Your task to perform on an android device: turn on notifications settings in the gmail app Image 0: 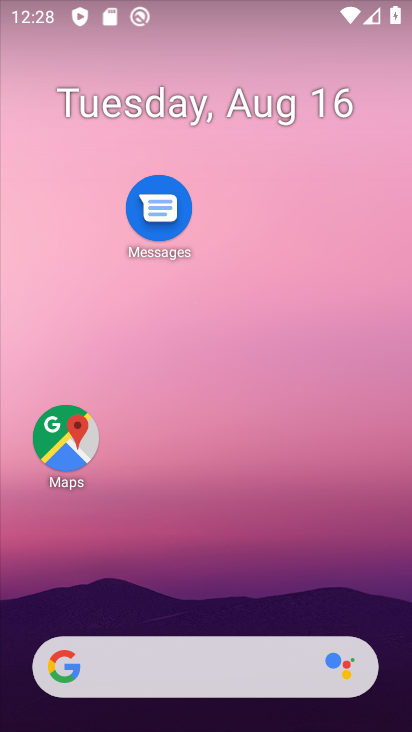
Step 0: drag from (185, 609) to (137, 61)
Your task to perform on an android device: turn on notifications settings in the gmail app Image 1: 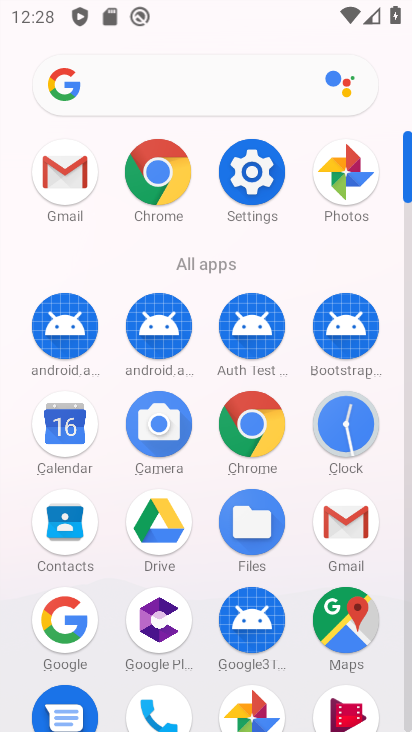
Step 1: click (361, 526)
Your task to perform on an android device: turn on notifications settings in the gmail app Image 2: 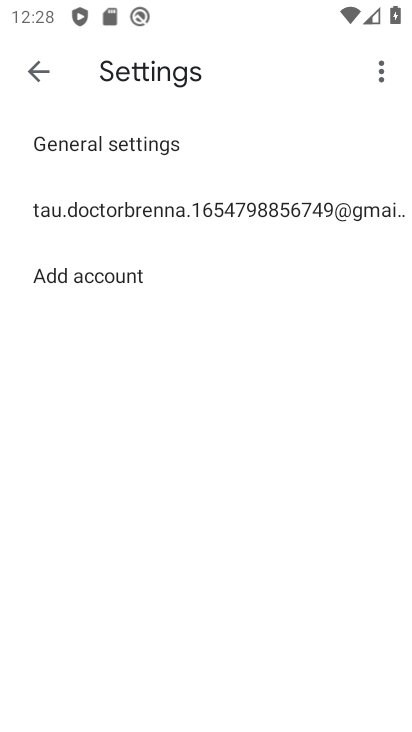
Step 2: click (59, 140)
Your task to perform on an android device: turn on notifications settings in the gmail app Image 3: 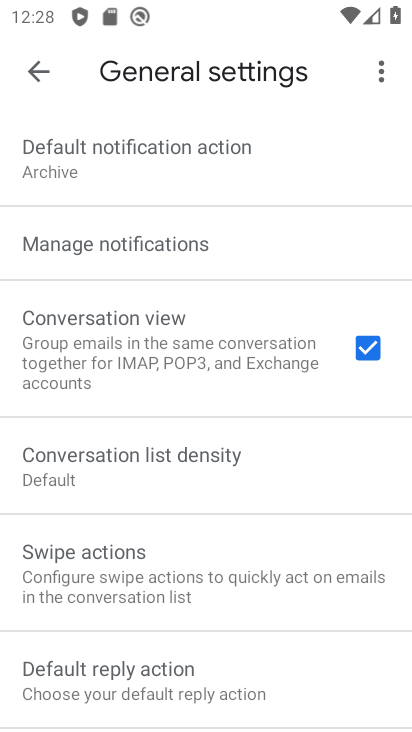
Step 3: click (142, 236)
Your task to perform on an android device: turn on notifications settings in the gmail app Image 4: 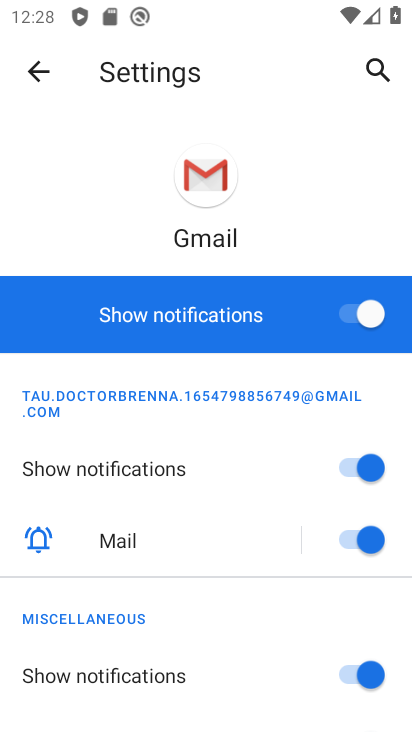
Step 4: task complete